Your task to perform on an android device: Open Google Chrome and open the bookmarks view Image 0: 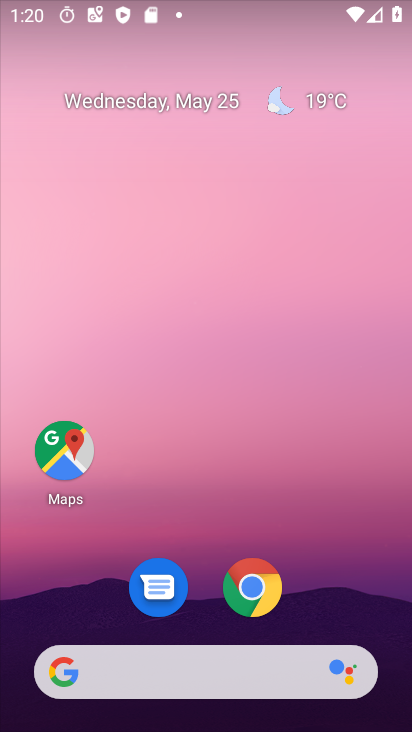
Step 0: click (251, 589)
Your task to perform on an android device: Open Google Chrome and open the bookmarks view Image 1: 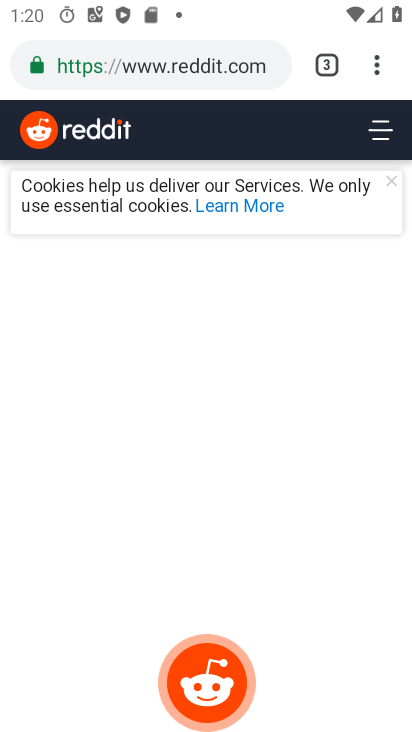
Step 1: click (378, 71)
Your task to perform on an android device: Open Google Chrome and open the bookmarks view Image 2: 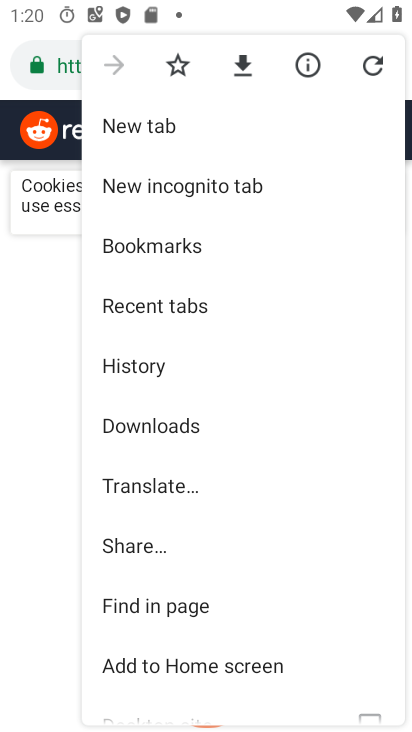
Step 2: click (150, 244)
Your task to perform on an android device: Open Google Chrome and open the bookmarks view Image 3: 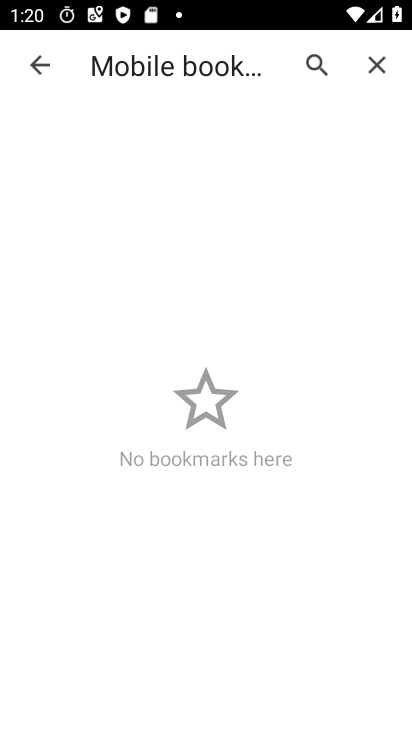
Step 3: task complete